Your task to perform on an android device: Set the phone to "Do not disturb". Image 0: 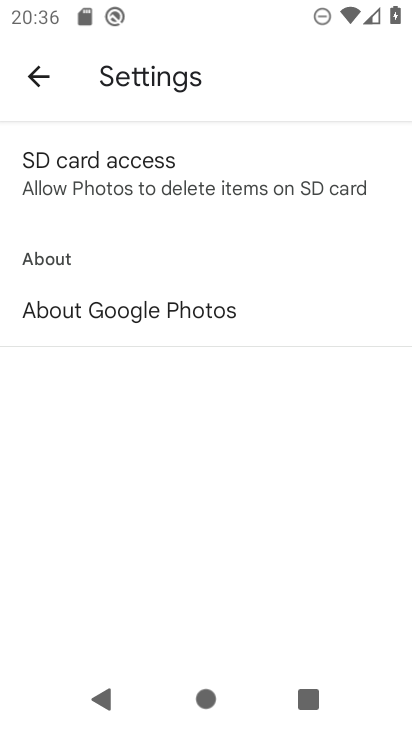
Step 0: press home button
Your task to perform on an android device: Set the phone to "Do not disturb". Image 1: 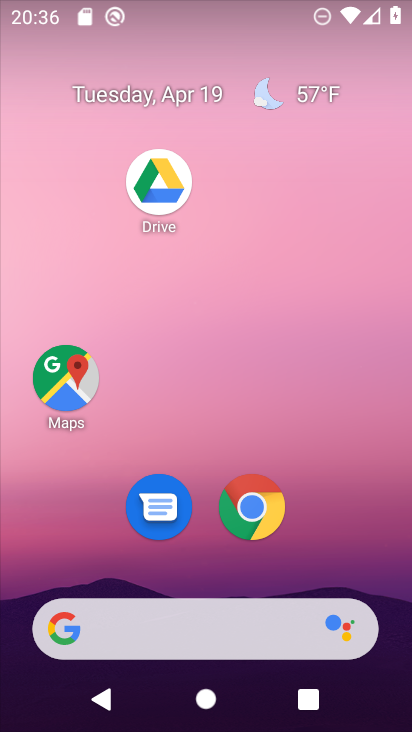
Step 1: drag from (372, 487) to (363, 136)
Your task to perform on an android device: Set the phone to "Do not disturb". Image 2: 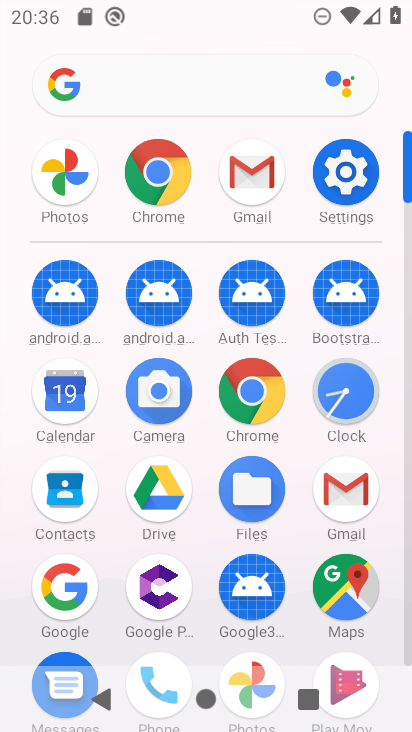
Step 2: click (353, 166)
Your task to perform on an android device: Set the phone to "Do not disturb". Image 3: 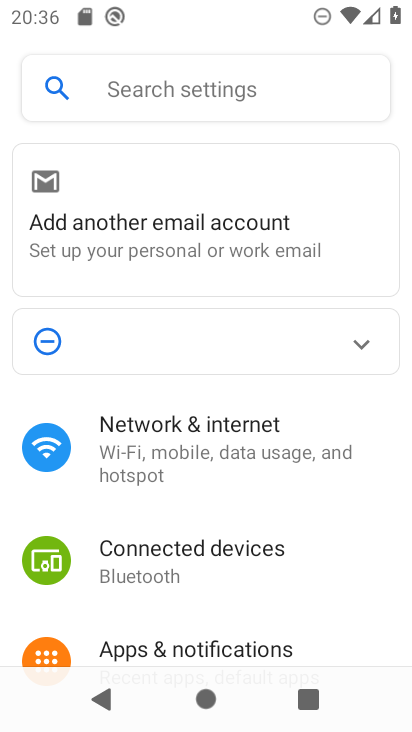
Step 3: drag from (271, 578) to (247, 175)
Your task to perform on an android device: Set the phone to "Do not disturb". Image 4: 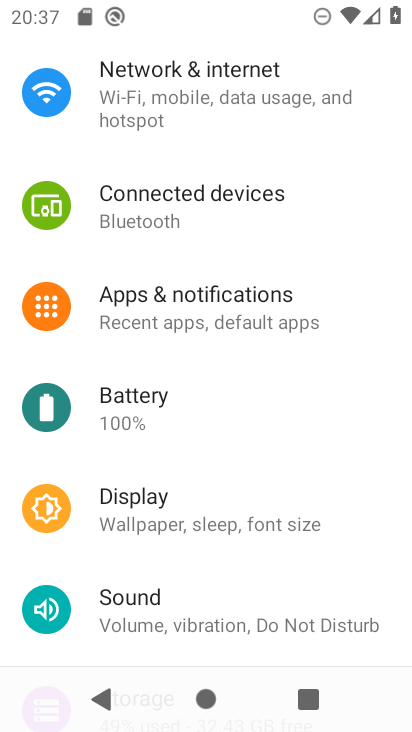
Step 4: click (259, 605)
Your task to perform on an android device: Set the phone to "Do not disturb". Image 5: 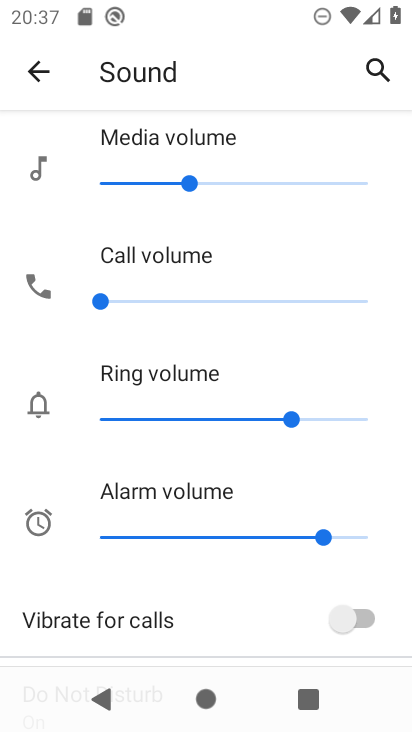
Step 5: task complete